Your task to perform on an android device: snooze an email in the gmail app Image 0: 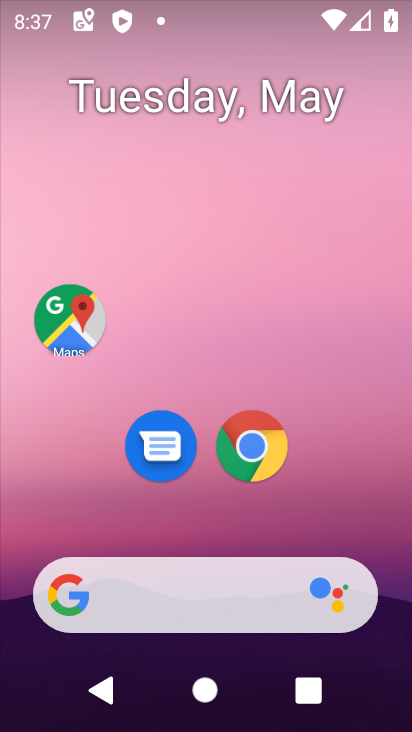
Step 0: drag from (345, 550) to (345, 54)
Your task to perform on an android device: snooze an email in the gmail app Image 1: 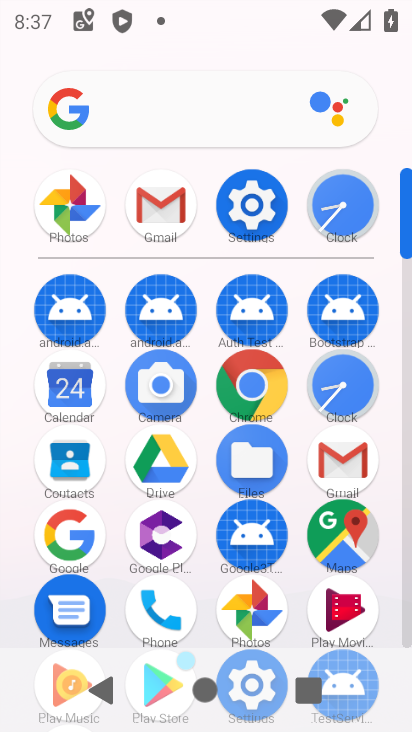
Step 1: click (154, 212)
Your task to perform on an android device: snooze an email in the gmail app Image 2: 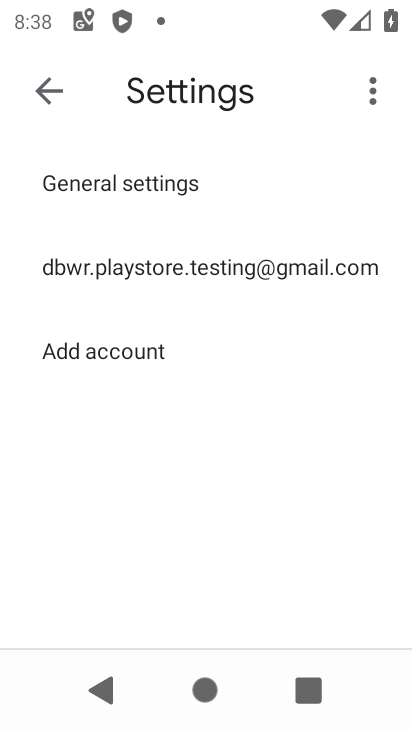
Step 2: click (44, 92)
Your task to perform on an android device: snooze an email in the gmail app Image 3: 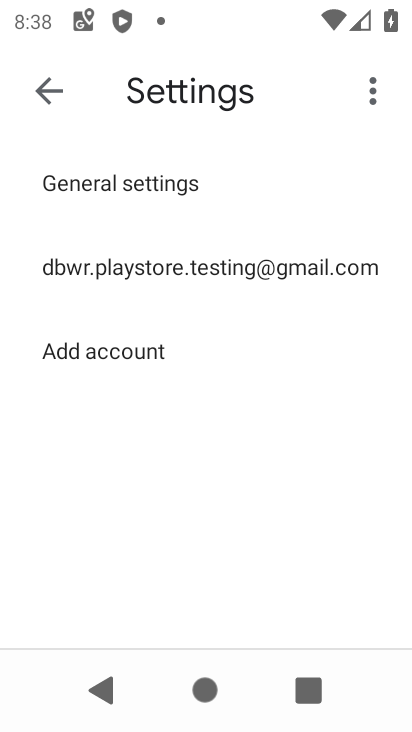
Step 3: click (43, 92)
Your task to perform on an android device: snooze an email in the gmail app Image 4: 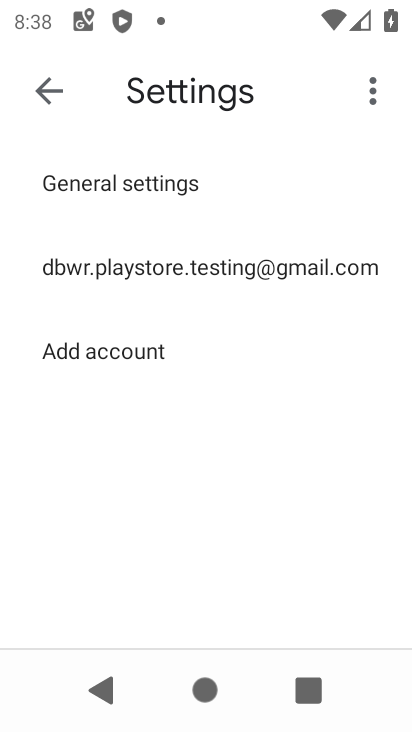
Step 4: click (43, 92)
Your task to perform on an android device: snooze an email in the gmail app Image 5: 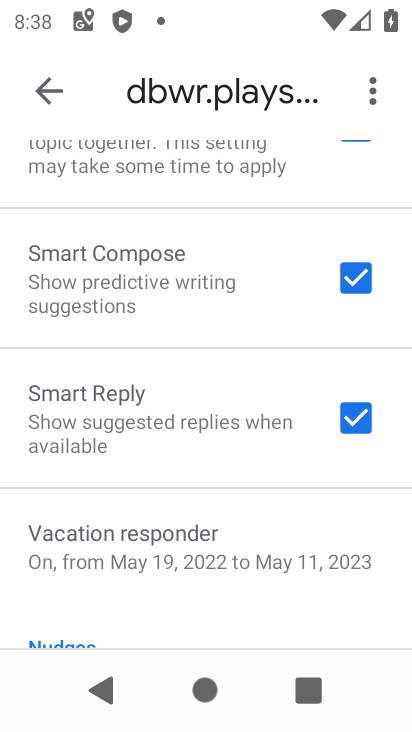
Step 5: click (43, 93)
Your task to perform on an android device: snooze an email in the gmail app Image 6: 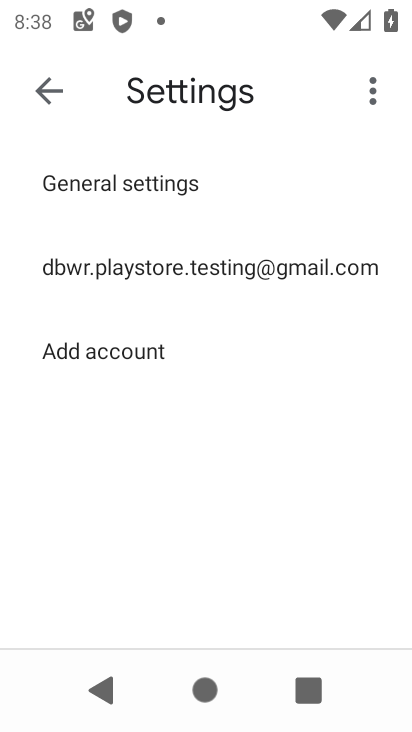
Step 6: click (43, 94)
Your task to perform on an android device: snooze an email in the gmail app Image 7: 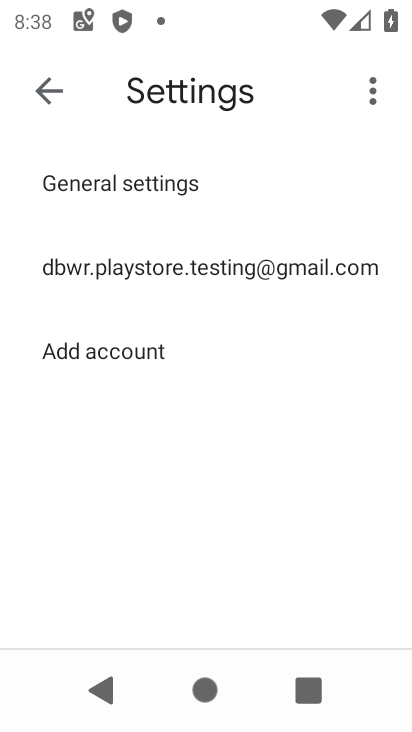
Step 7: click (43, 96)
Your task to perform on an android device: snooze an email in the gmail app Image 8: 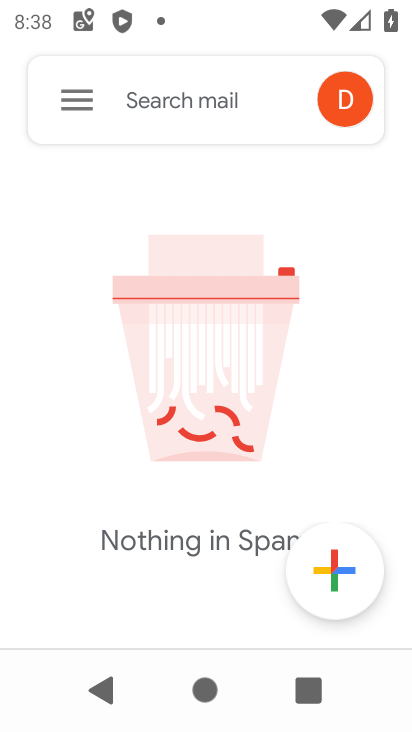
Step 8: click (86, 97)
Your task to perform on an android device: snooze an email in the gmail app Image 9: 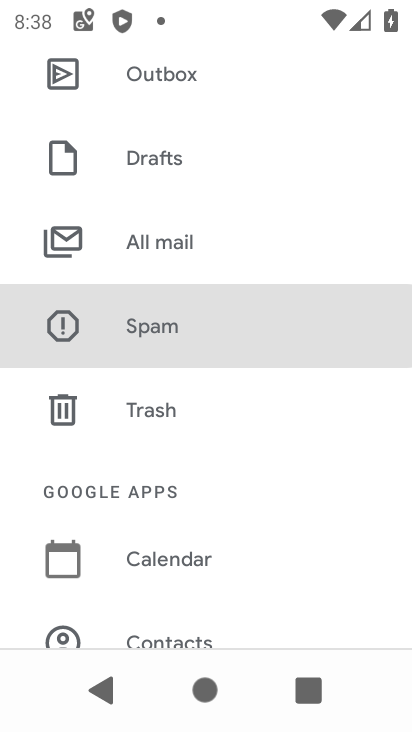
Step 9: click (184, 236)
Your task to perform on an android device: snooze an email in the gmail app Image 10: 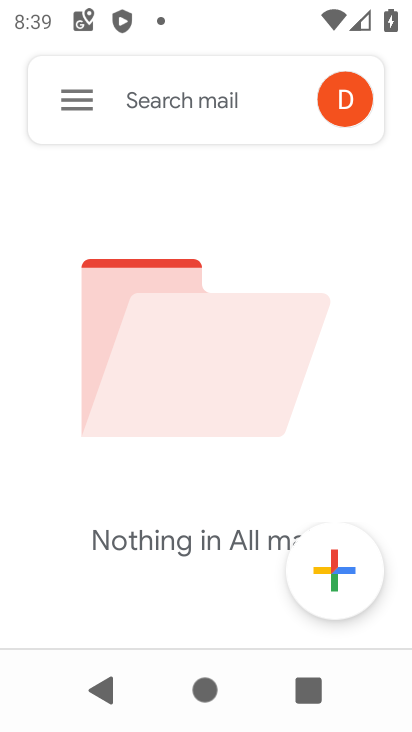
Step 10: task complete